Your task to perform on an android device: turn off location history Image 0: 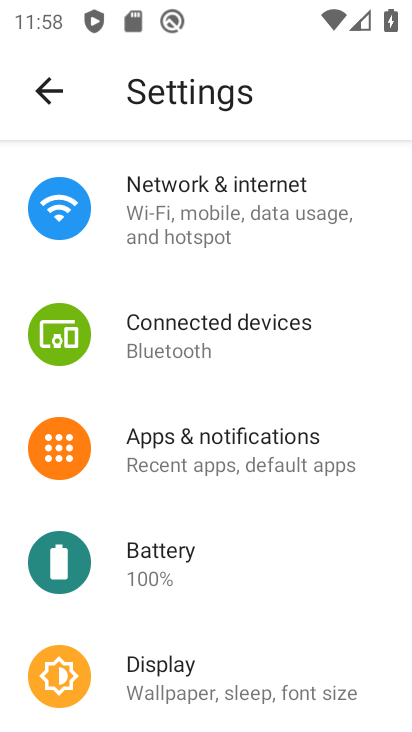
Step 0: drag from (290, 541) to (311, 128)
Your task to perform on an android device: turn off location history Image 1: 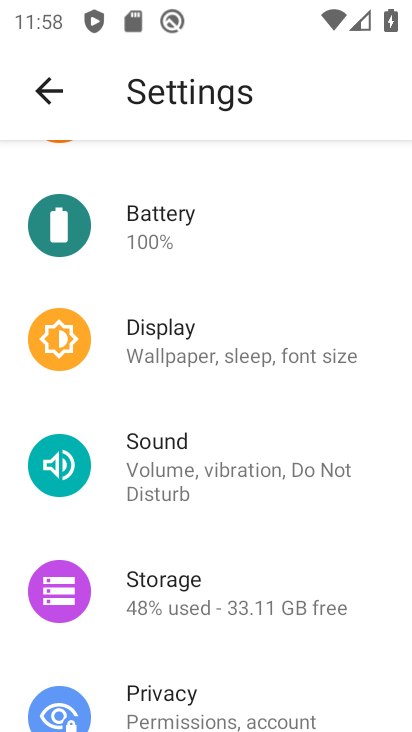
Step 1: drag from (272, 534) to (292, 144)
Your task to perform on an android device: turn off location history Image 2: 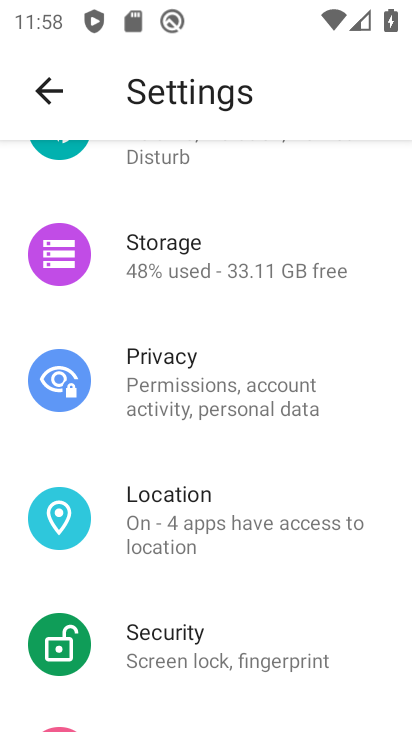
Step 2: click (210, 513)
Your task to perform on an android device: turn off location history Image 3: 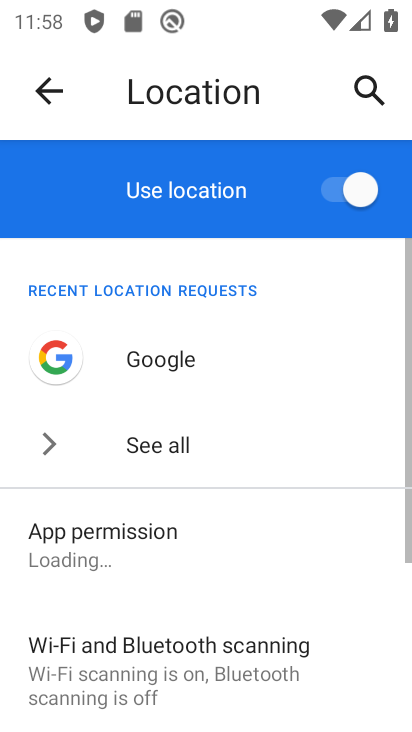
Step 3: click (337, 162)
Your task to perform on an android device: turn off location history Image 4: 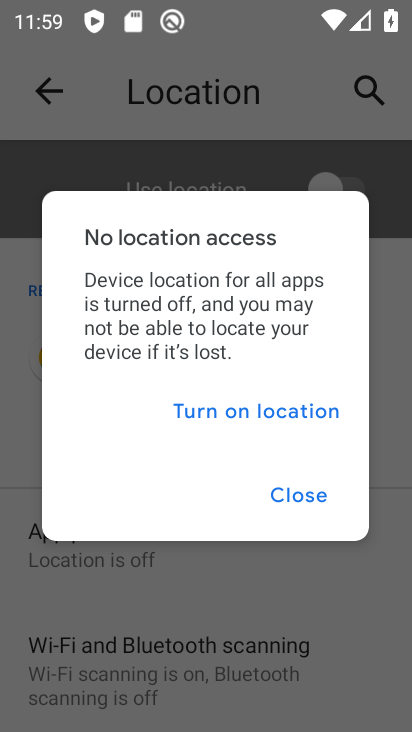
Step 4: click (309, 495)
Your task to perform on an android device: turn off location history Image 5: 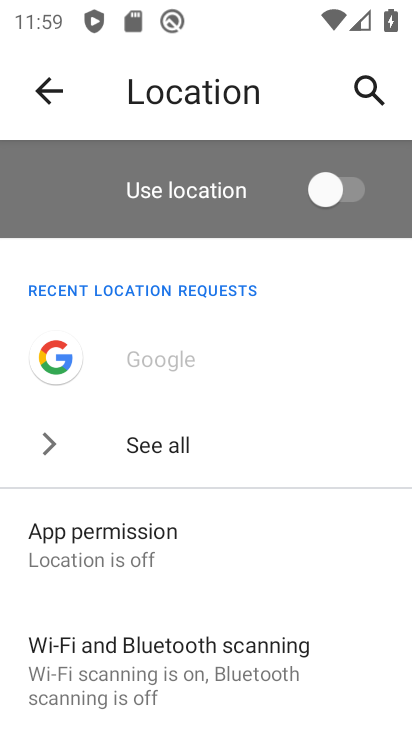
Step 5: task complete